Your task to perform on an android device: turn off picture-in-picture Image 0: 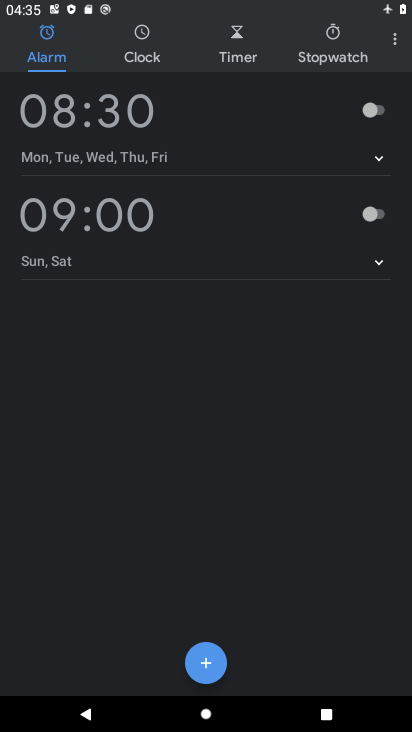
Step 0: press home button
Your task to perform on an android device: turn off picture-in-picture Image 1: 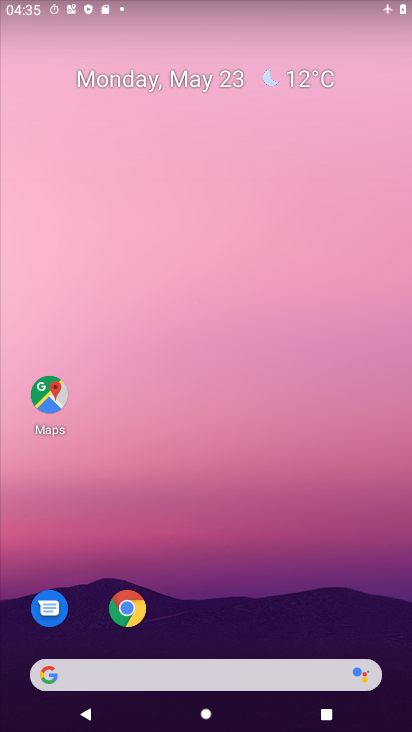
Step 1: drag from (292, 372) to (230, 126)
Your task to perform on an android device: turn off picture-in-picture Image 2: 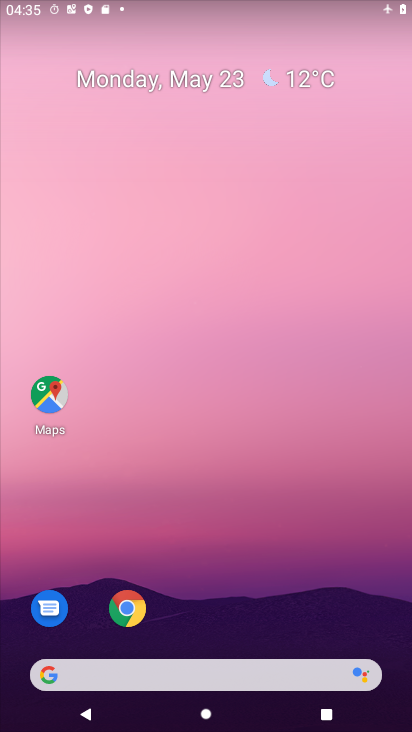
Step 2: drag from (279, 468) to (218, 17)
Your task to perform on an android device: turn off picture-in-picture Image 3: 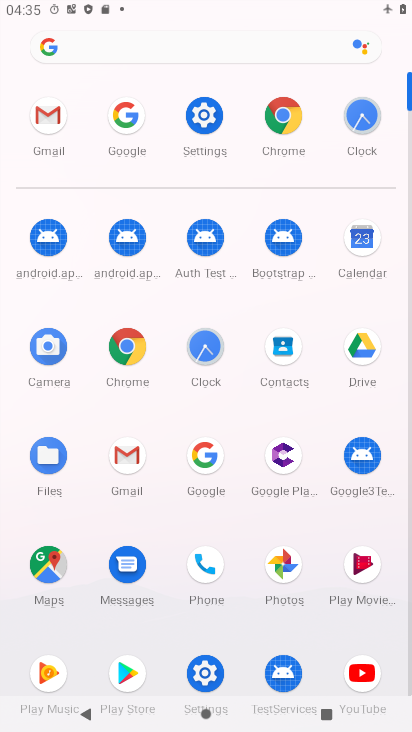
Step 3: click (203, 117)
Your task to perform on an android device: turn off picture-in-picture Image 4: 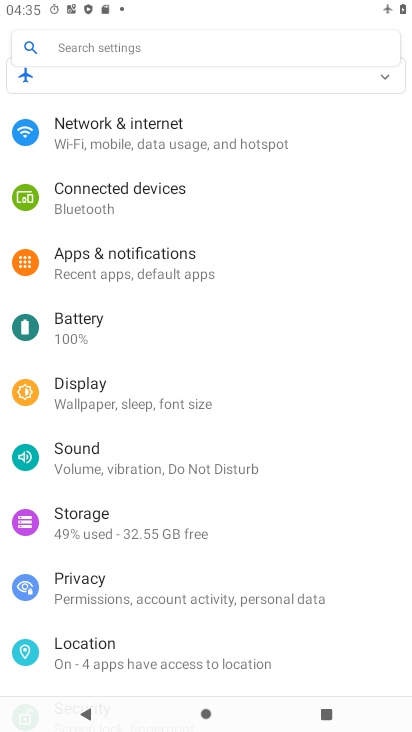
Step 4: click (178, 271)
Your task to perform on an android device: turn off picture-in-picture Image 5: 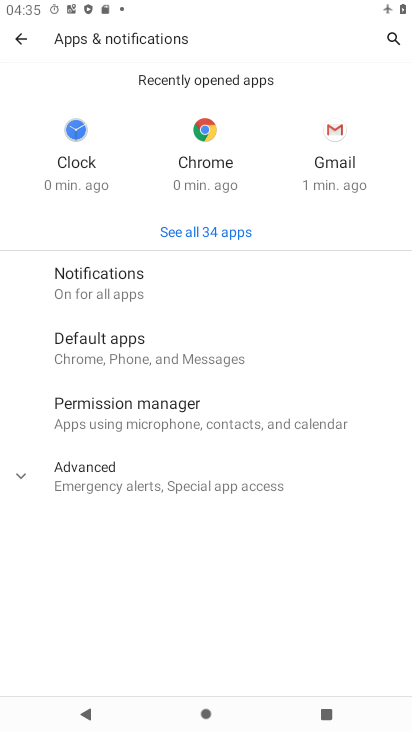
Step 5: click (195, 297)
Your task to perform on an android device: turn off picture-in-picture Image 6: 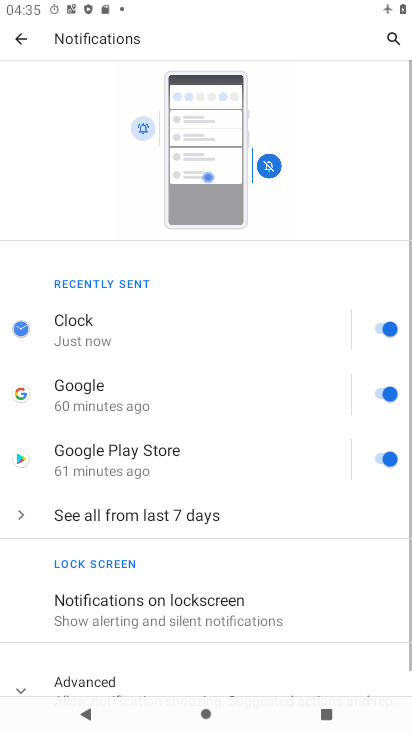
Step 6: drag from (271, 632) to (223, 66)
Your task to perform on an android device: turn off picture-in-picture Image 7: 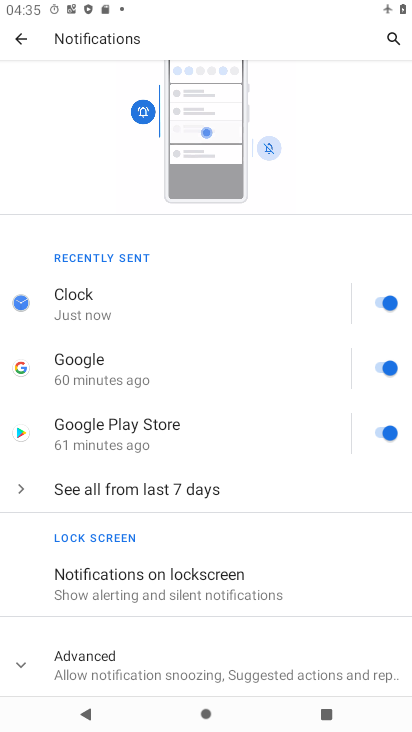
Step 7: click (23, 43)
Your task to perform on an android device: turn off picture-in-picture Image 8: 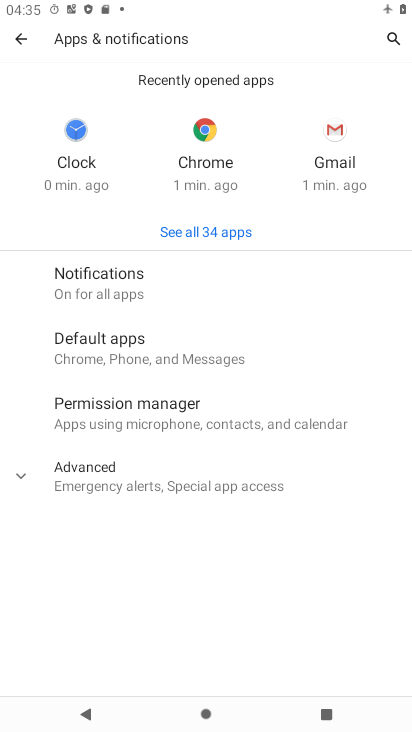
Step 8: click (201, 479)
Your task to perform on an android device: turn off picture-in-picture Image 9: 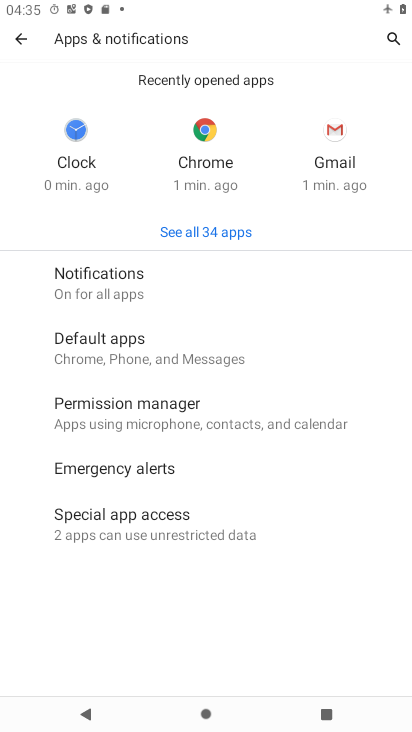
Step 9: click (189, 531)
Your task to perform on an android device: turn off picture-in-picture Image 10: 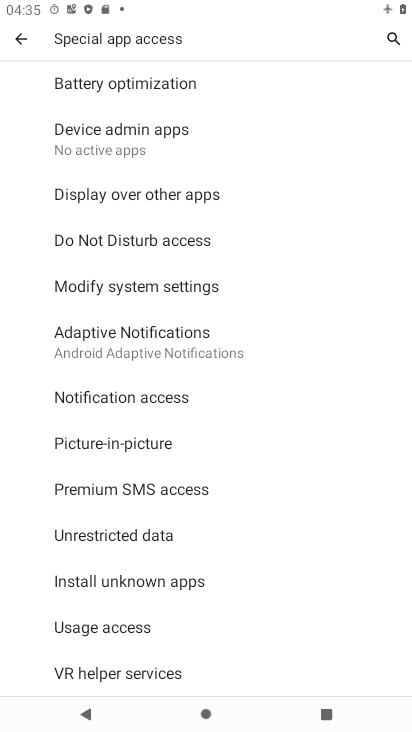
Step 10: click (127, 444)
Your task to perform on an android device: turn off picture-in-picture Image 11: 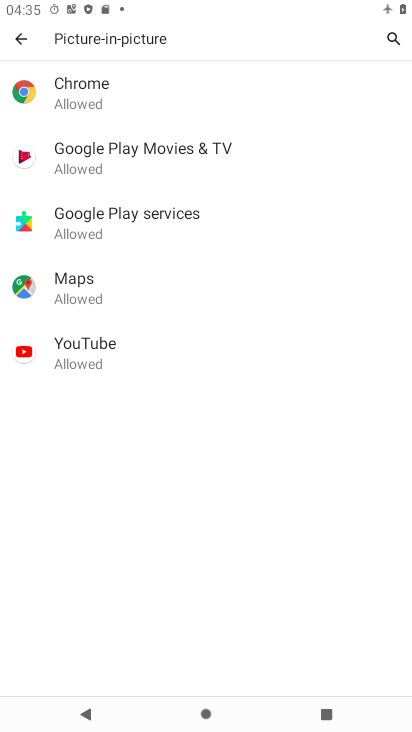
Step 11: click (281, 295)
Your task to perform on an android device: turn off picture-in-picture Image 12: 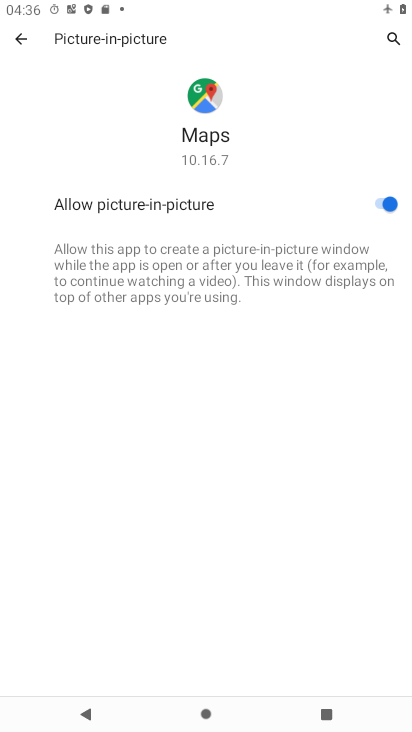
Step 12: click (369, 207)
Your task to perform on an android device: turn off picture-in-picture Image 13: 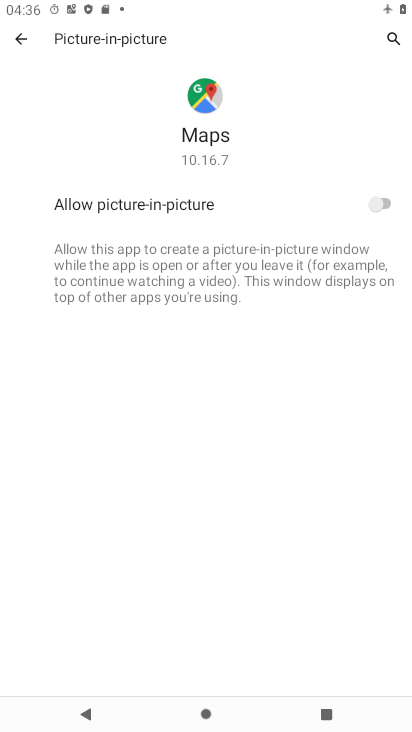
Step 13: task complete